Your task to perform on an android device: add a label to a message in the gmail app Image 0: 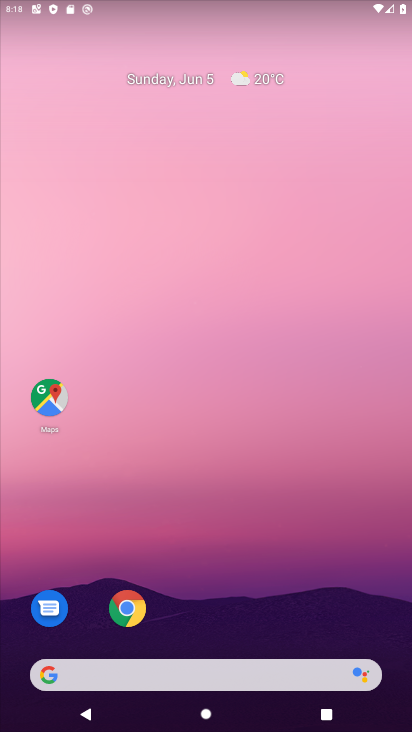
Step 0: drag from (54, 595) to (259, 181)
Your task to perform on an android device: add a label to a message in the gmail app Image 1: 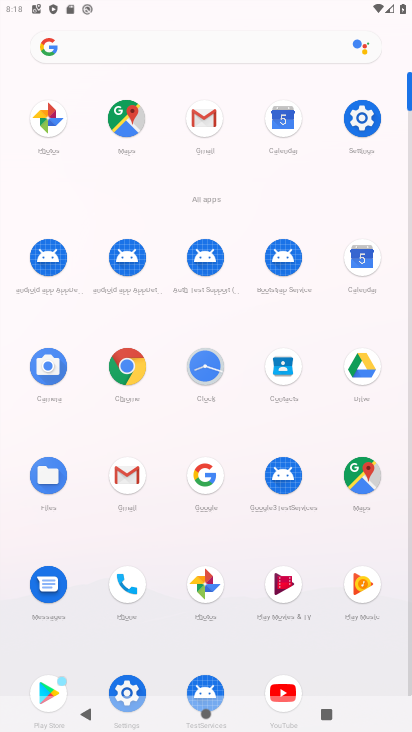
Step 1: click (126, 473)
Your task to perform on an android device: add a label to a message in the gmail app Image 2: 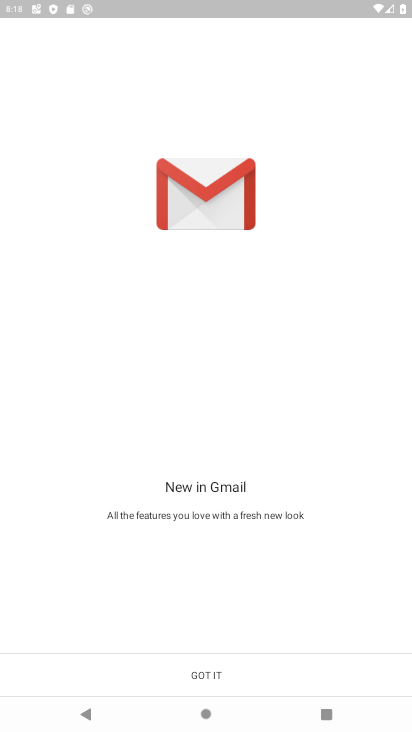
Step 2: press home button
Your task to perform on an android device: add a label to a message in the gmail app Image 3: 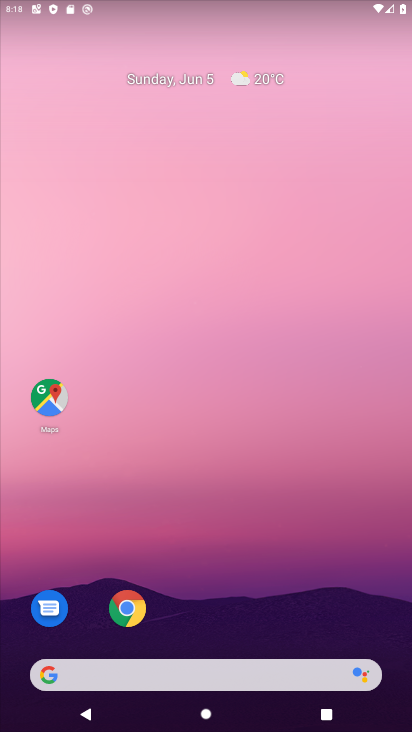
Step 3: drag from (94, 473) to (301, 130)
Your task to perform on an android device: add a label to a message in the gmail app Image 4: 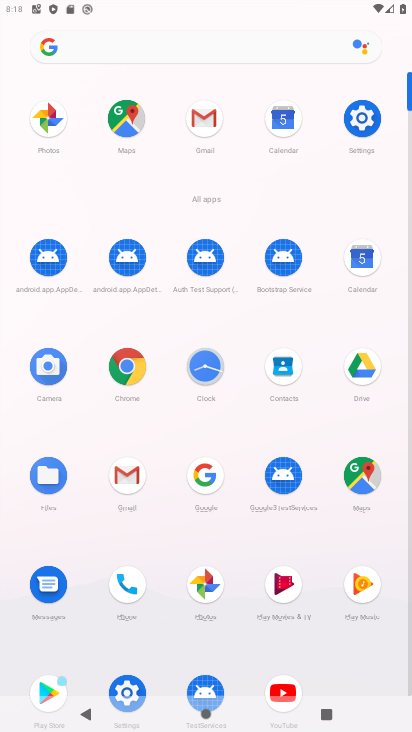
Step 4: click (207, 118)
Your task to perform on an android device: add a label to a message in the gmail app Image 5: 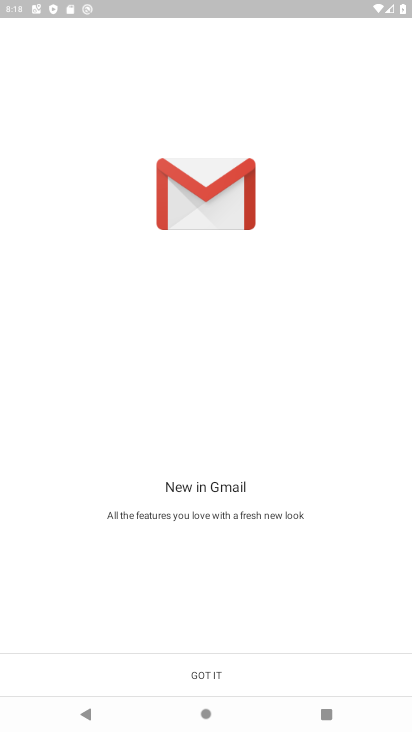
Step 5: click (207, 669)
Your task to perform on an android device: add a label to a message in the gmail app Image 6: 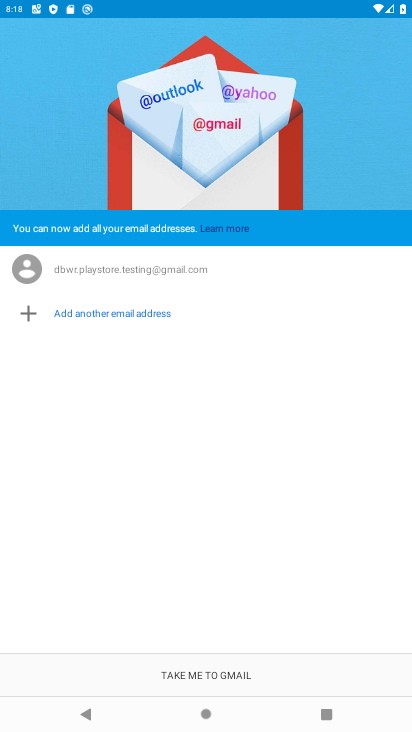
Step 6: click (210, 682)
Your task to perform on an android device: add a label to a message in the gmail app Image 7: 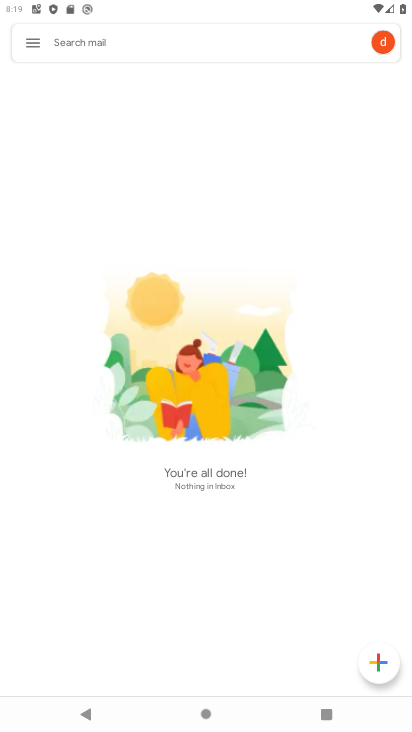
Step 7: click (35, 41)
Your task to perform on an android device: add a label to a message in the gmail app Image 8: 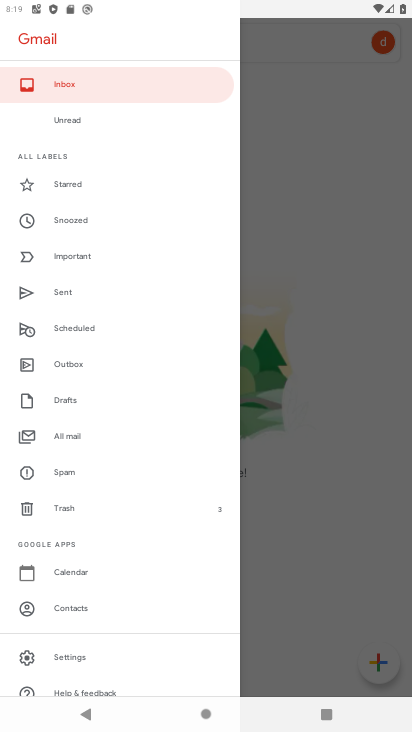
Step 8: drag from (108, 645) to (225, 238)
Your task to perform on an android device: add a label to a message in the gmail app Image 9: 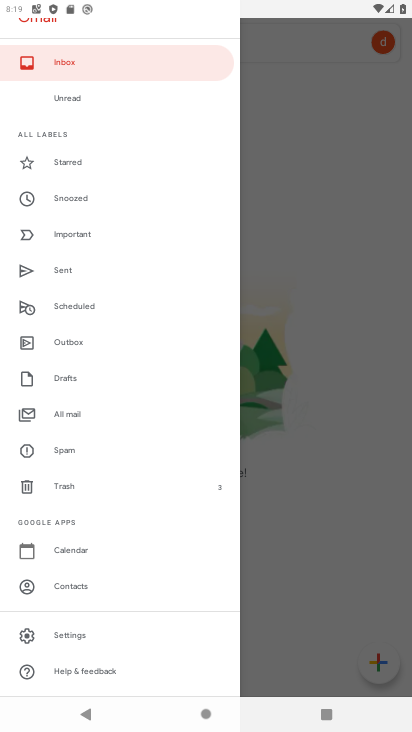
Step 9: click (87, 155)
Your task to perform on an android device: add a label to a message in the gmail app Image 10: 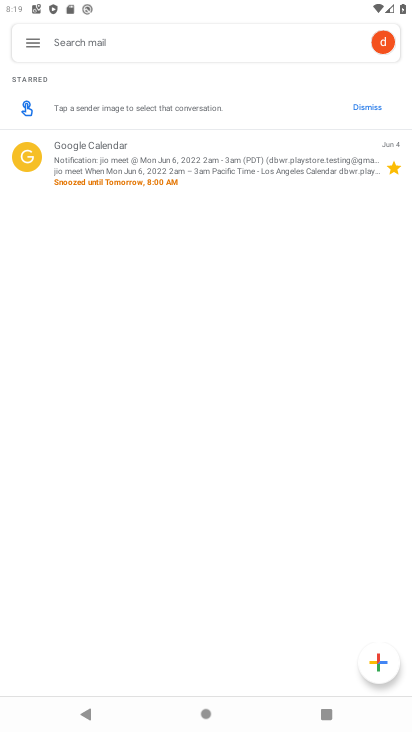
Step 10: task complete